Your task to perform on an android device: refresh tabs in the chrome app Image 0: 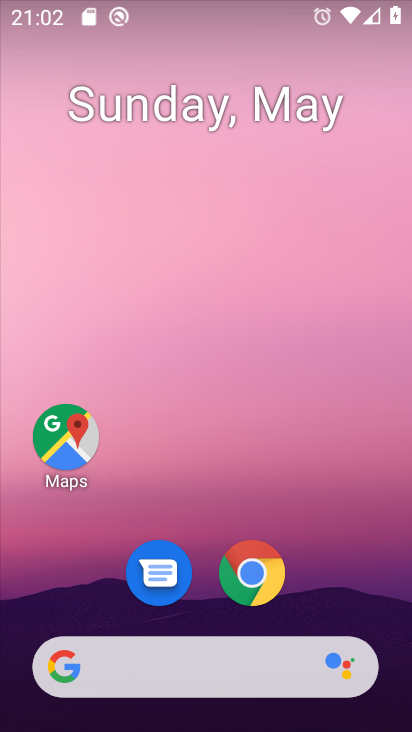
Step 0: click (253, 558)
Your task to perform on an android device: refresh tabs in the chrome app Image 1: 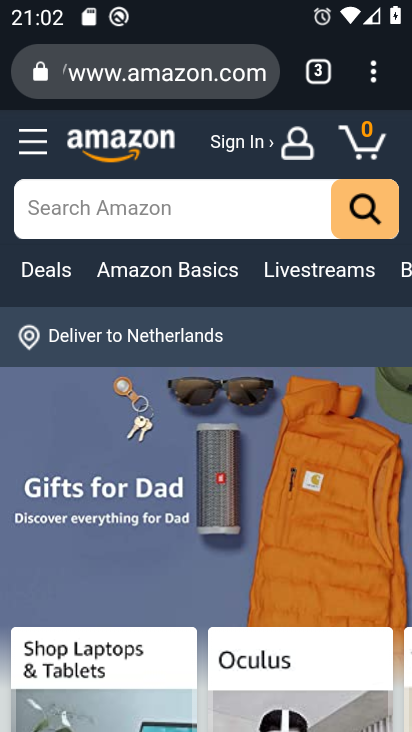
Step 1: click (370, 66)
Your task to perform on an android device: refresh tabs in the chrome app Image 2: 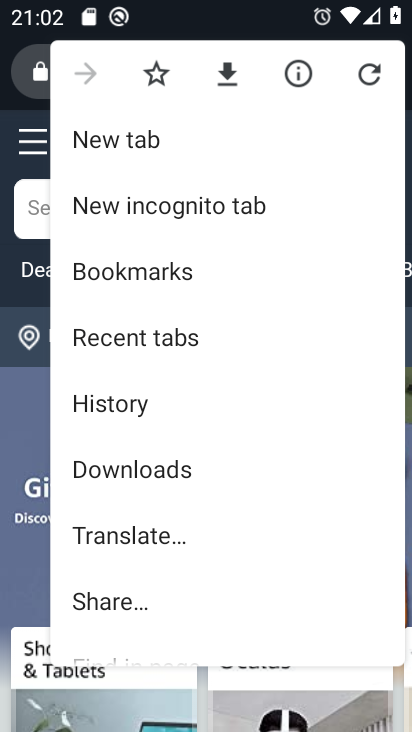
Step 2: click (365, 74)
Your task to perform on an android device: refresh tabs in the chrome app Image 3: 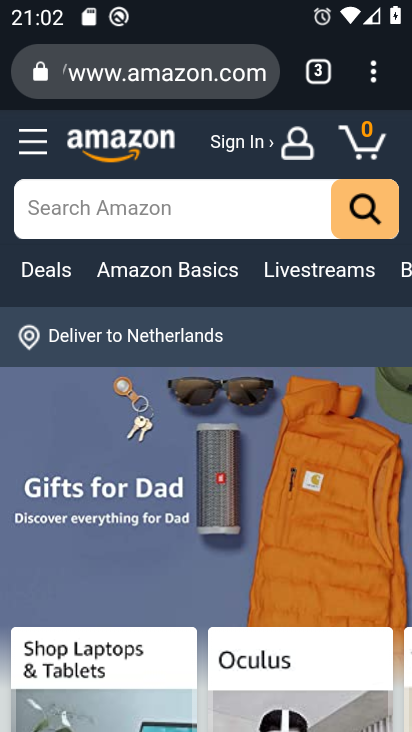
Step 3: task complete